Your task to perform on an android device: Clear the cart on ebay.com. Search for razer naga on ebay.com, select the first entry, add it to the cart, then select checkout. Image 0: 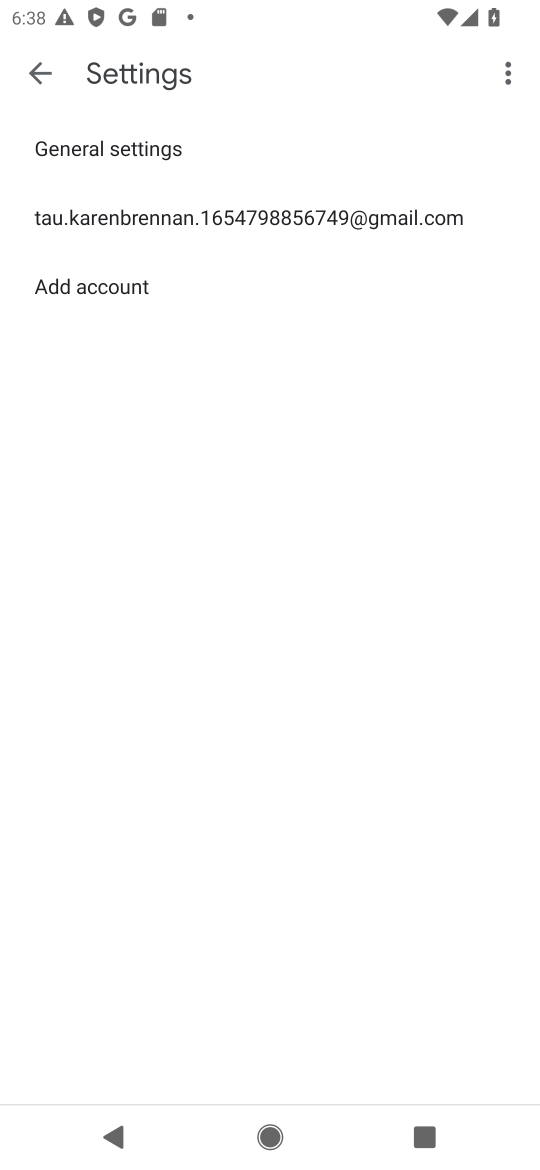
Step 0: press home button
Your task to perform on an android device: Clear the cart on ebay.com. Search for razer naga on ebay.com, select the first entry, add it to the cart, then select checkout. Image 1: 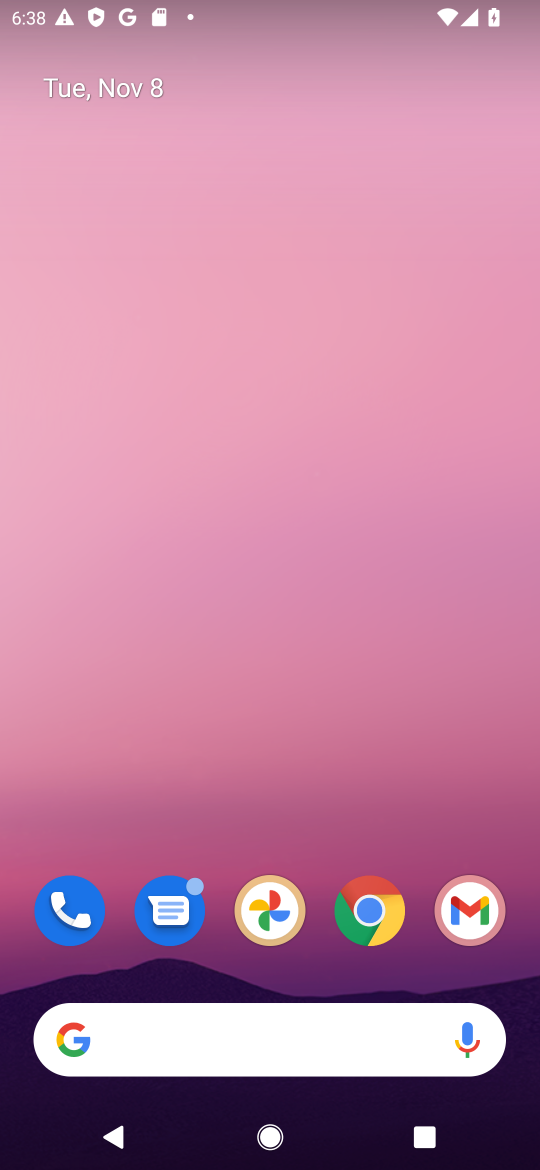
Step 1: click (352, 916)
Your task to perform on an android device: Clear the cart on ebay.com. Search for razer naga on ebay.com, select the first entry, add it to the cart, then select checkout. Image 2: 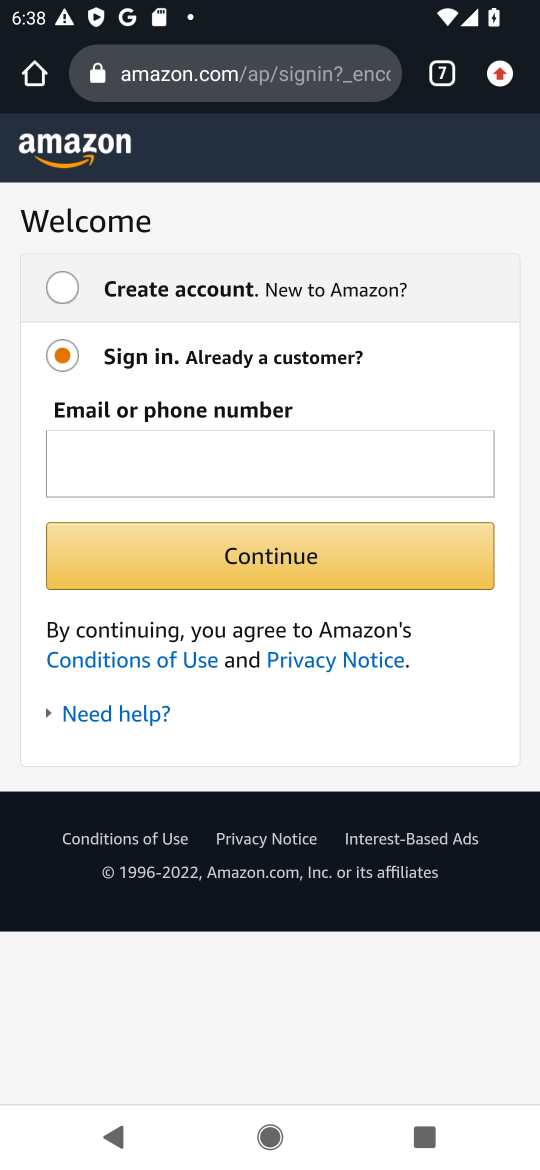
Step 2: click (444, 77)
Your task to perform on an android device: Clear the cart on ebay.com. Search for razer naga on ebay.com, select the first entry, add it to the cart, then select checkout. Image 3: 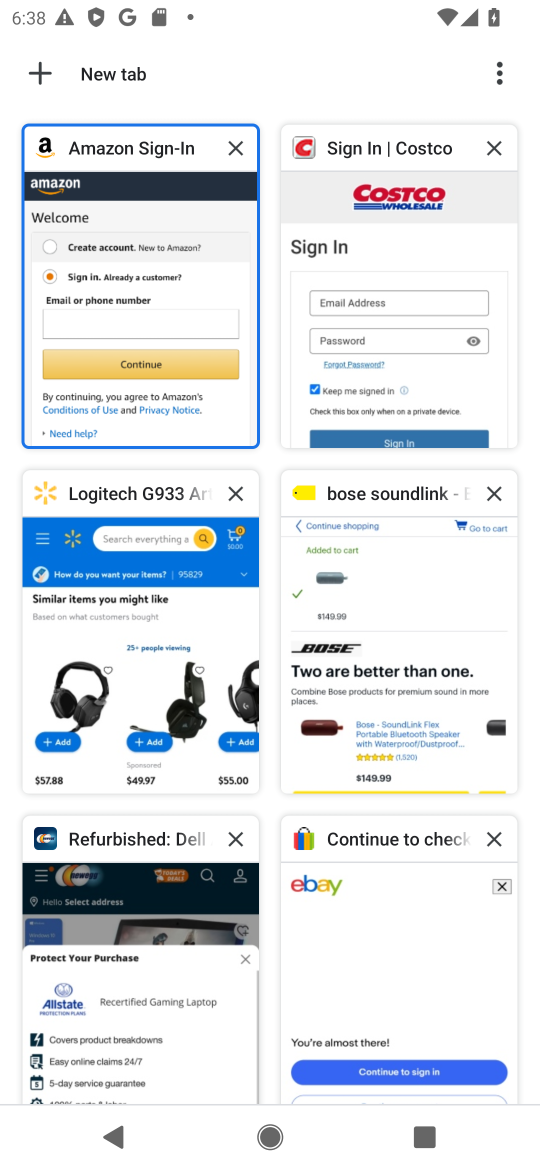
Step 3: click (354, 926)
Your task to perform on an android device: Clear the cart on ebay.com. Search for razer naga on ebay.com, select the first entry, add it to the cart, then select checkout. Image 4: 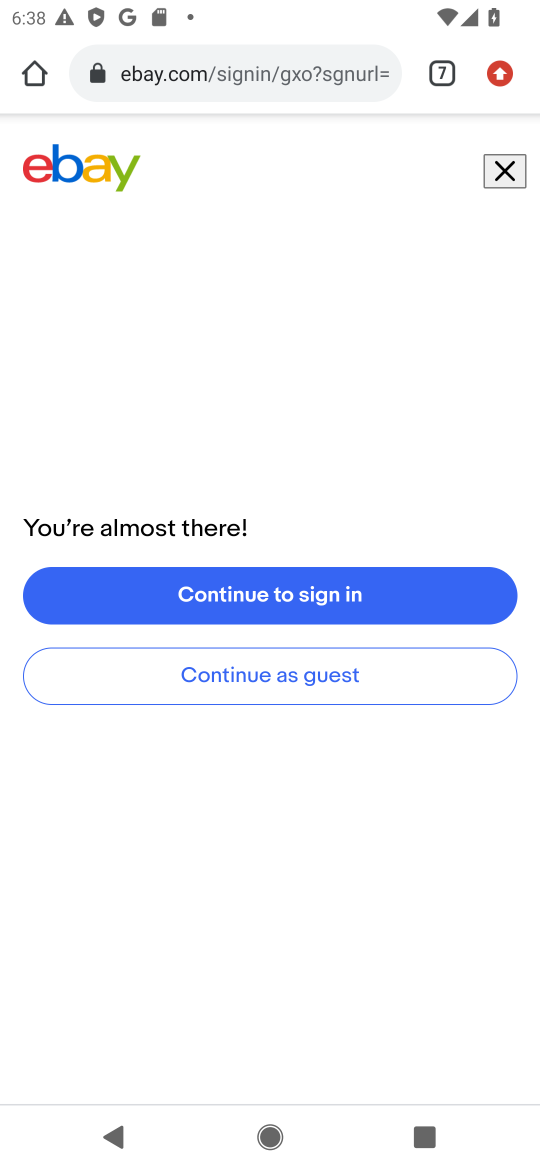
Step 4: click (307, 678)
Your task to perform on an android device: Clear the cart on ebay.com. Search for razer naga on ebay.com, select the first entry, add it to the cart, then select checkout. Image 5: 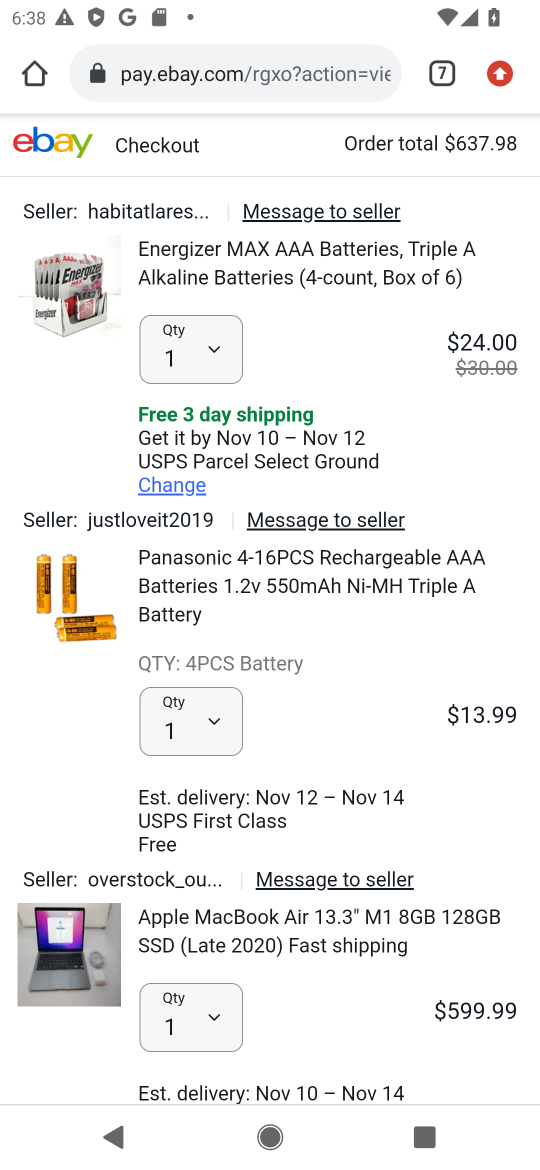
Step 5: drag from (281, 171) to (166, 1125)
Your task to perform on an android device: Clear the cart on ebay.com. Search for razer naga on ebay.com, select the first entry, add it to the cart, then select checkout. Image 6: 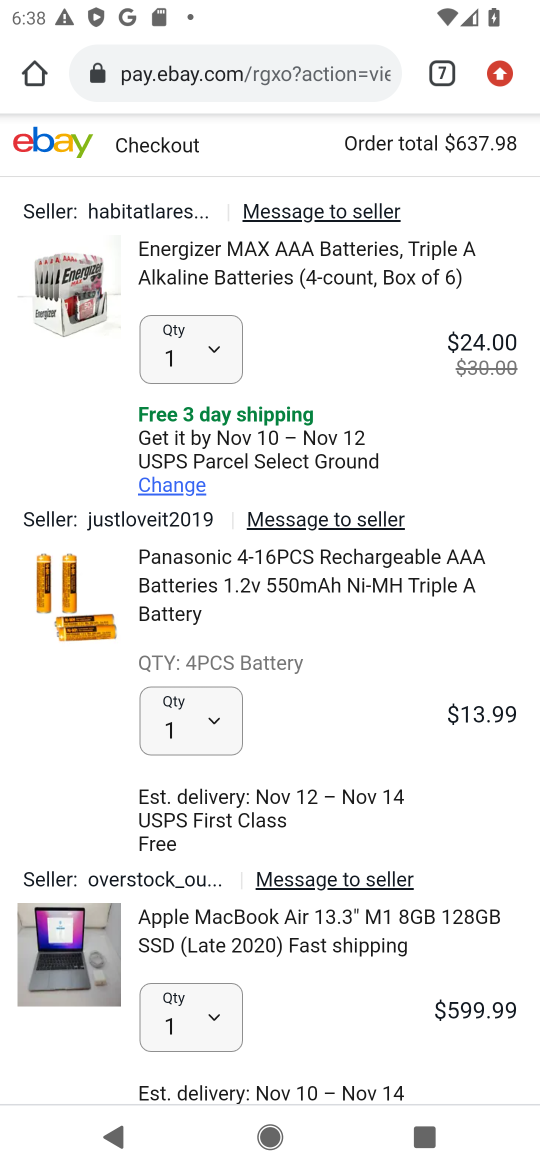
Step 6: drag from (287, 142) to (311, 616)
Your task to perform on an android device: Clear the cart on ebay.com. Search for razer naga on ebay.com, select the first entry, add it to the cart, then select checkout. Image 7: 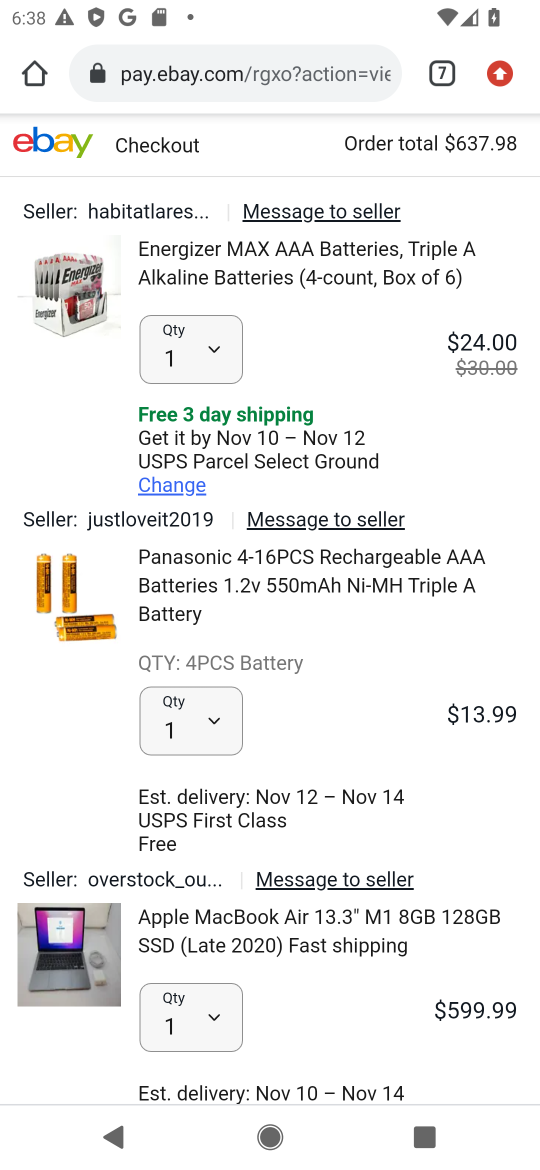
Step 7: press back button
Your task to perform on an android device: Clear the cart on ebay.com. Search for razer naga on ebay.com, select the first entry, add it to the cart, then select checkout. Image 8: 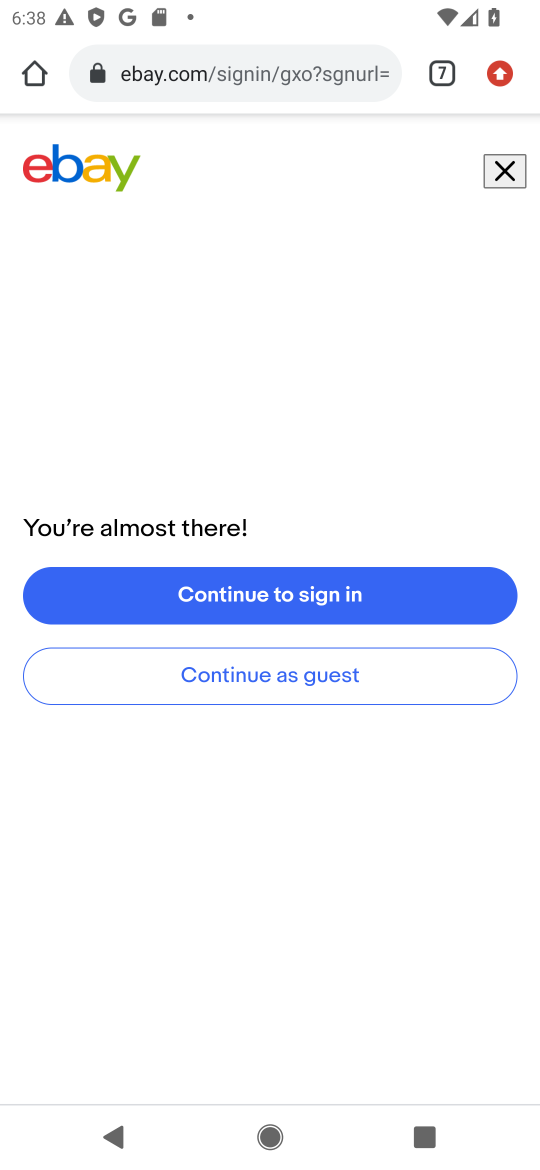
Step 8: press back button
Your task to perform on an android device: Clear the cart on ebay.com. Search for razer naga on ebay.com, select the first entry, add it to the cart, then select checkout. Image 9: 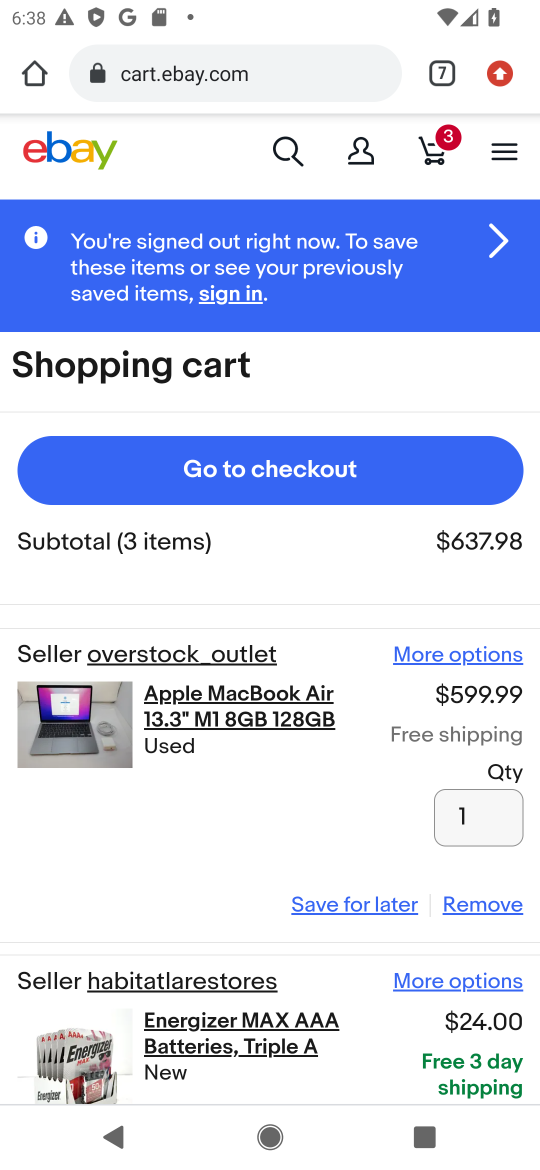
Step 9: click (281, 149)
Your task to perform on an android device: Clear the cart on ebay.com. Search for razer naga on ebay.com, select the first entry, add it to the cart, then select checkout. Image 10: 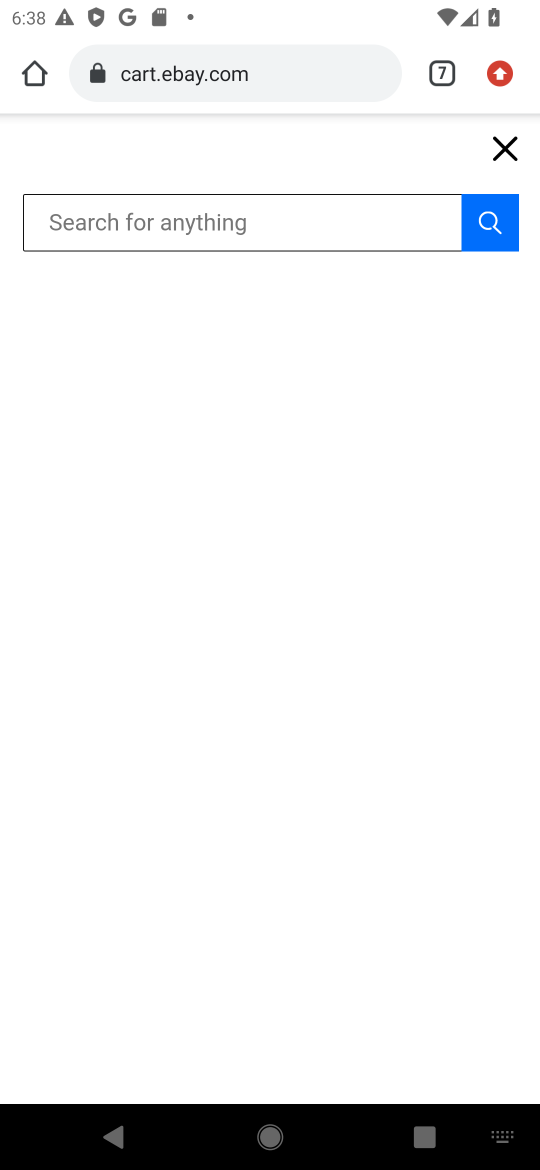
Step 10: type "razer naga"
Your task to perform on an android device: Clear the cart on ebay.com. Search for razer naga on ebay.com, select the first entry, add it to the cart, then select checkout. Image 11: 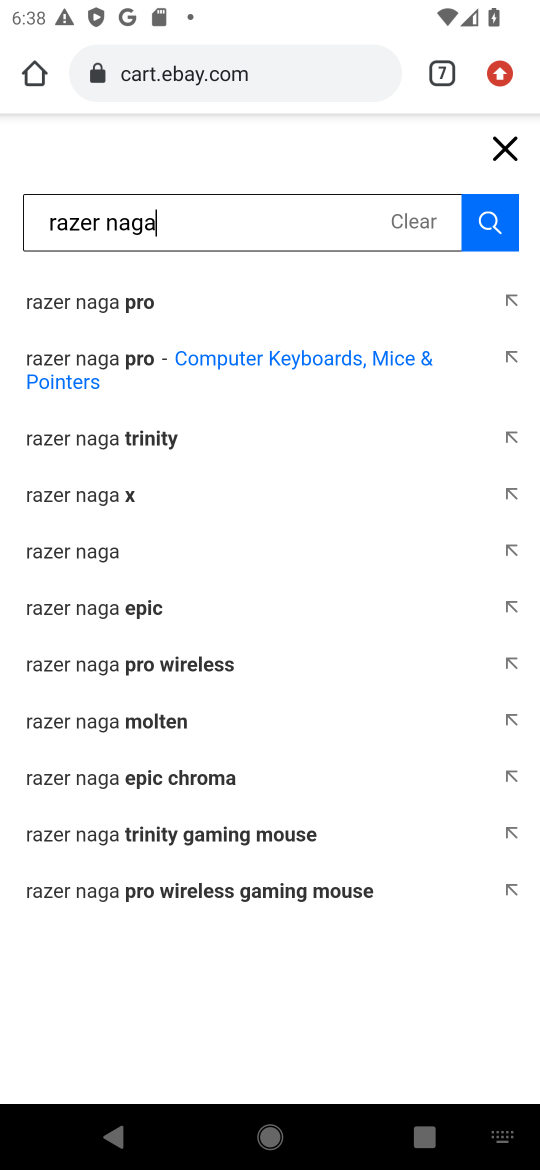
Step 11: click (129, 356)
Your task to perform on an android device: Clear the cart on ebay.com. Search for razer naga on ebay.com, select the first entry, add it to the cart, then select checkout. Image 12: 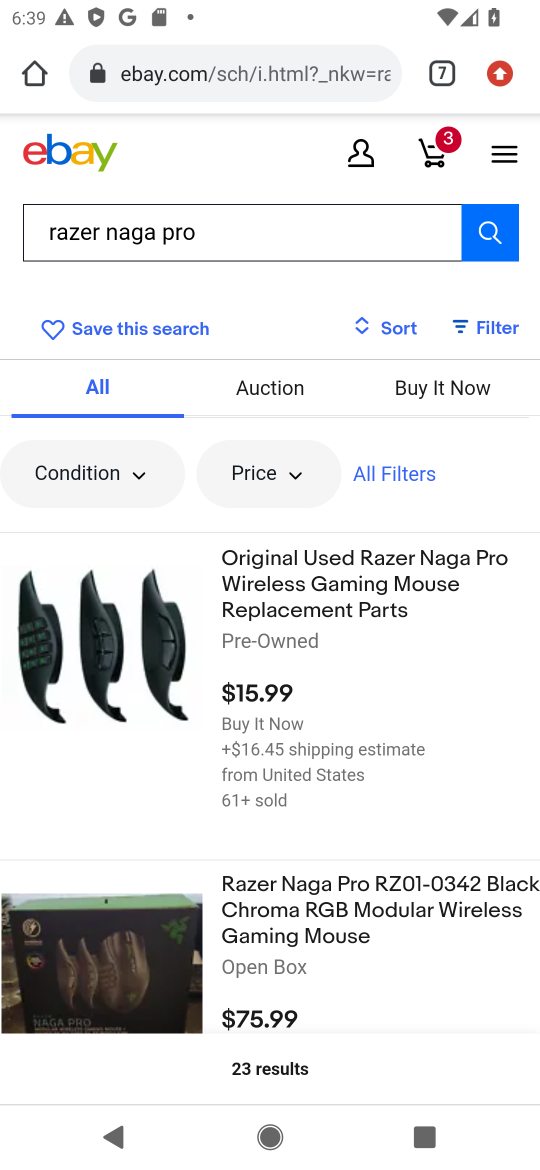
Step 12: click (312, 901)
Your task to perform on an android device: Clear the cart on ebay.com. Search for razer naga on ebay.com, select the first entry, add it to the cart, then select checkout. Image 13: 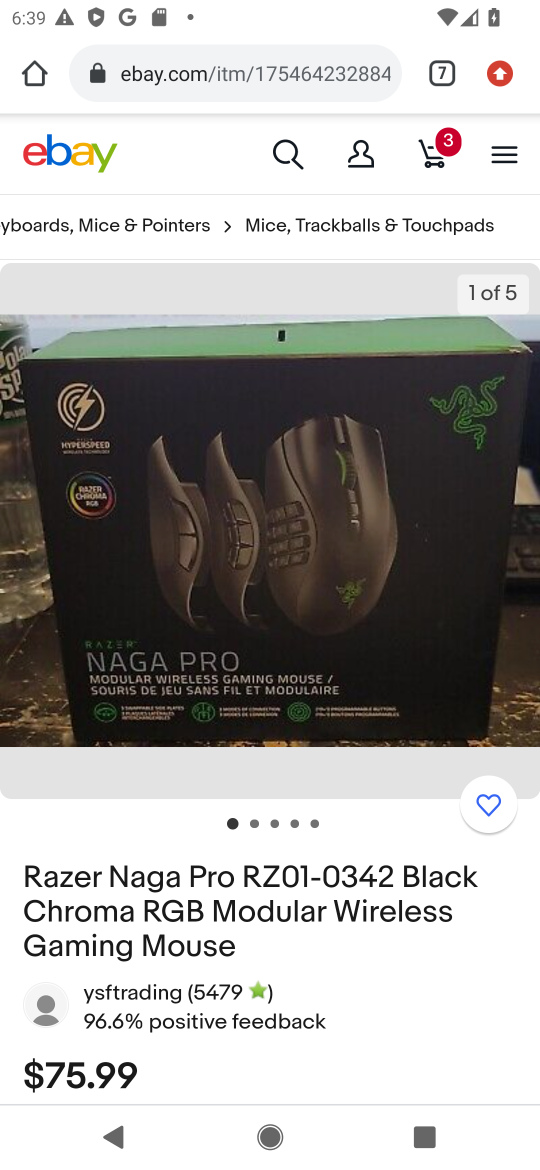
Step 13: drag from (330, 953) to (477, 250)
Your task to perform on an android device: Clear the cart on ebay.com. Search for razer naga on ebay.com, select the first entry, add it to the cart, then select checkout. Image 14: 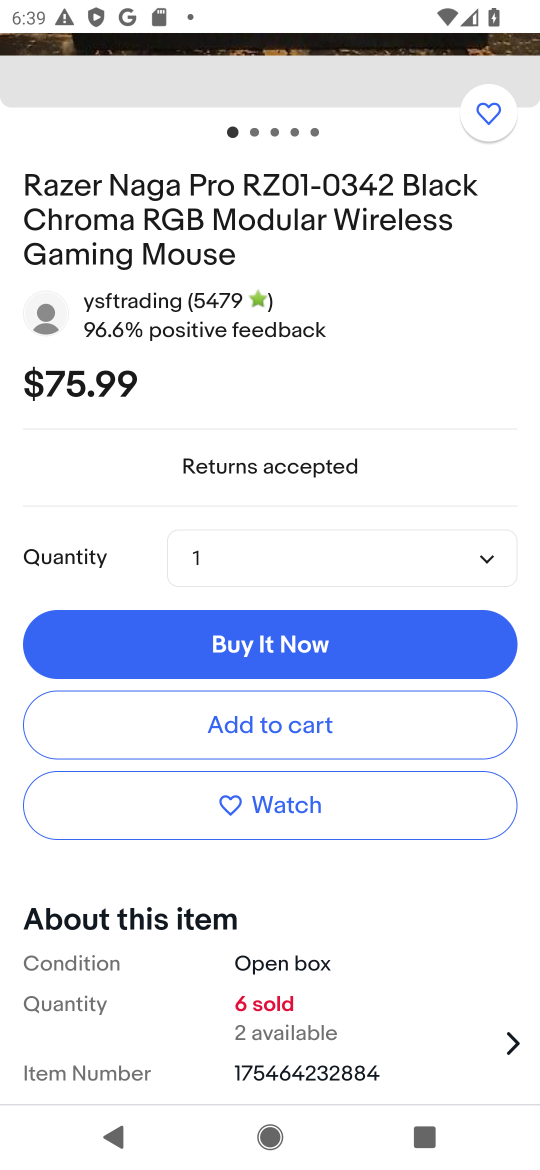
Step 14: click (311, 726)
Your task to perform on an android device: Clear the cart on ebay.com. Search for razer naga on ebay.com, select the first entry, add it to the cart, then select checkout. Image 15: 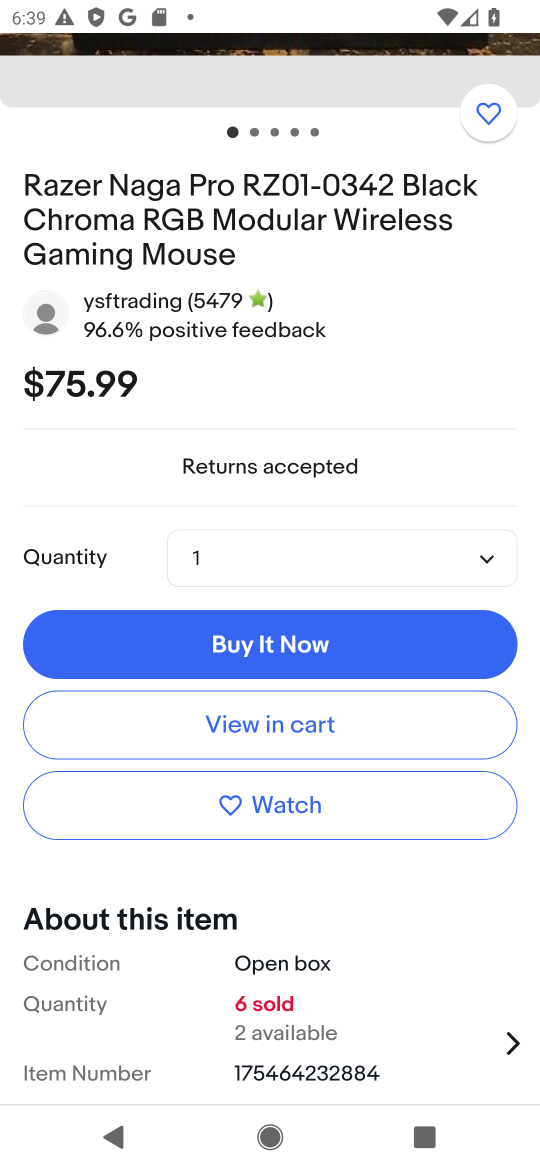
Step 15: click (249, 724)
Your task to perform on an android device: Clear the cart on ebay.com. Search for razer naga on ebay.com, select the first entry, add it to the cart, then select checkout. Image 16: 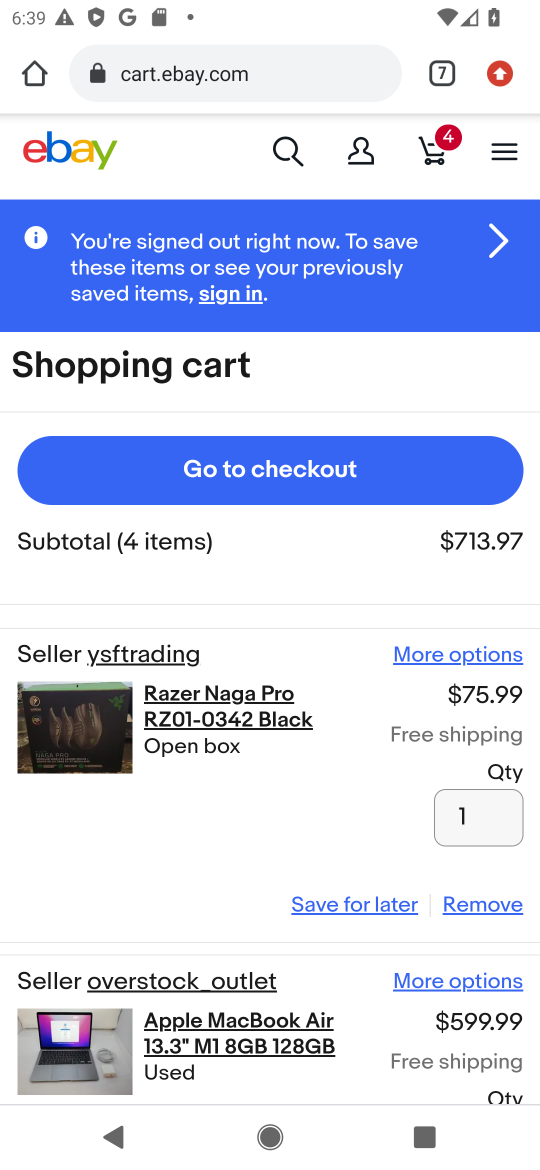
Step 16: drag from (210, 943) to (265, 422)
Your task to perform on an android device: Clear the cart on ebay.com. Search for razer naga on ebay.com, select the first entry, add it to the cart, then select checkout. Image 17: 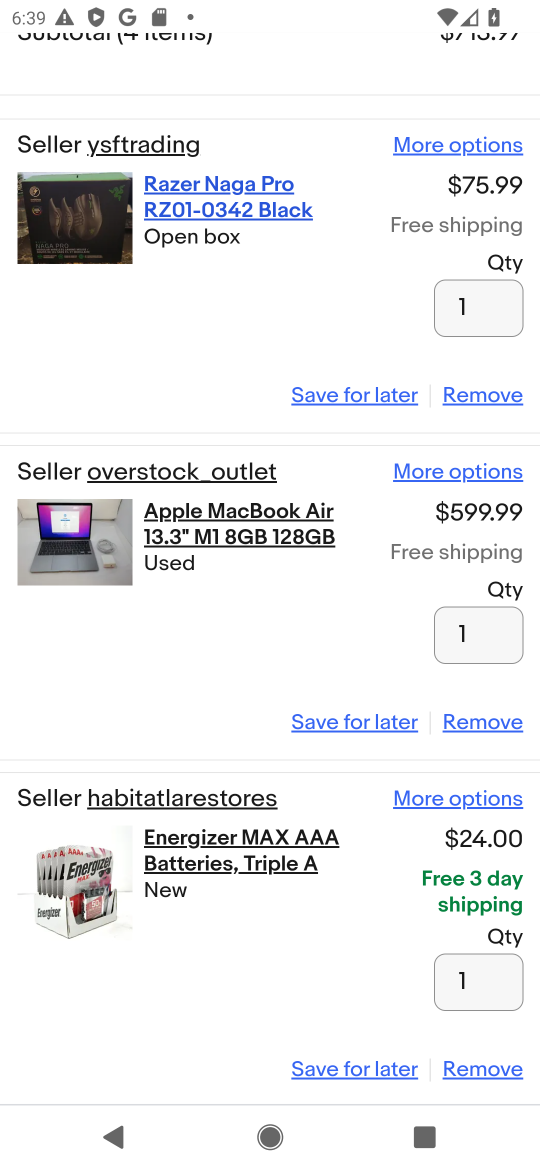
Step 17: click (471, 722)
Your task to perform on an android device: Clear the cart on ebay.com. Search for razer naga on ebay.com, select the first entry, add it to the cart, then select checkout. Image 18: 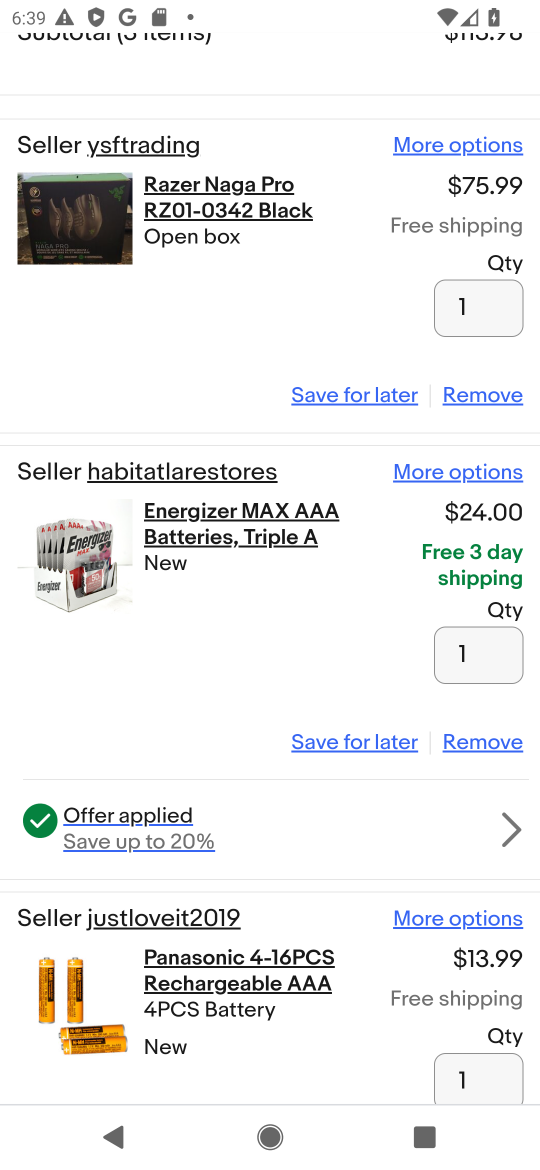
Step 18: click (498, 744)
Your task to perform on an android device: Clear the cart on ebay.com. Search for razer naga on ebay.com, select the first entry, add it to the cart, then select checkout. Image 19: 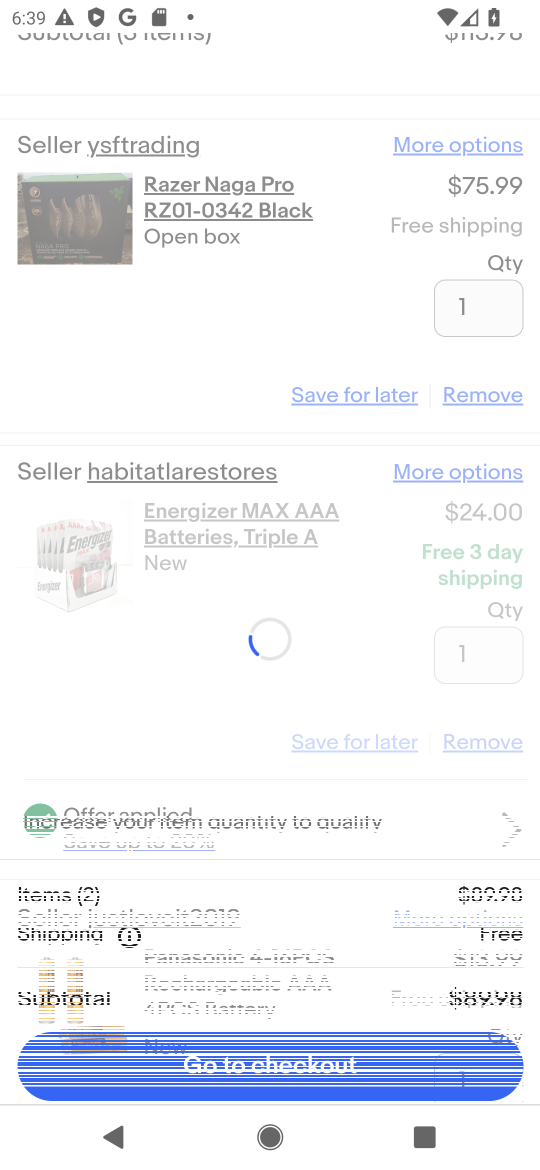
Step 19: task complete